Your task to perform on an android device: What's the US dollar exchange rate against the Brazilian Real? Image 0: 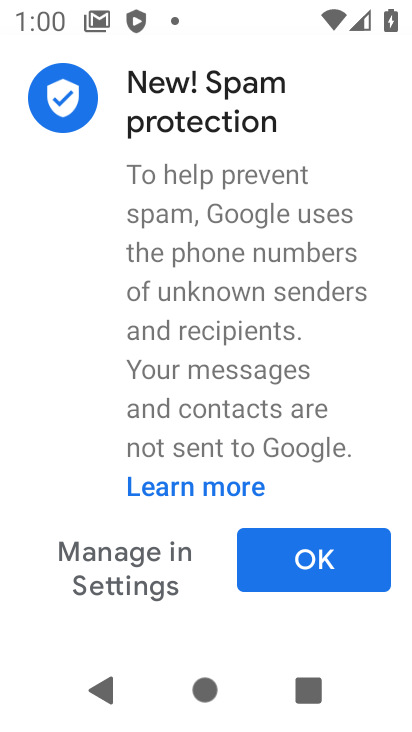
Step 0: press home button
Your task to perform on an android device: What's the US dollar exchange rate against the Brazilian Real? Image 1: 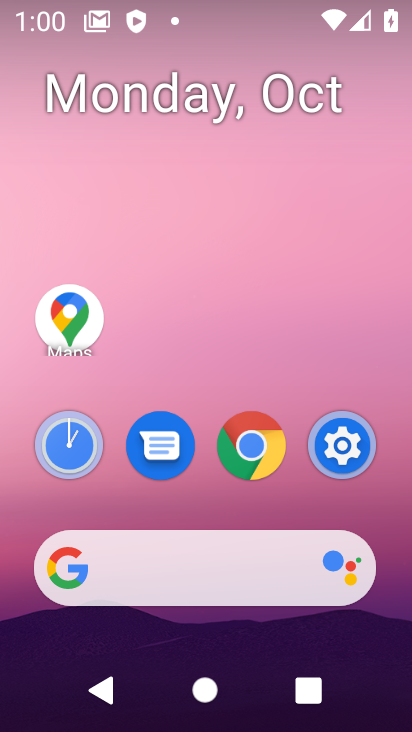
Step 1: click (142, 564)
Your task to perform on an android device: What's the US dollar exchange rate against the Brazilian Real? Image 2: 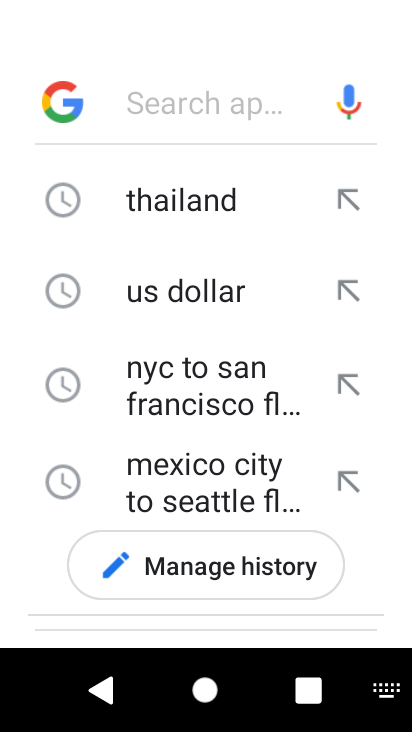
Step 2: type "US dollar exchange rate against the Brazilian Real"
Your task to perform on an android device: What's the US dollar exchange rate against the Brazilian Real? Image 3: 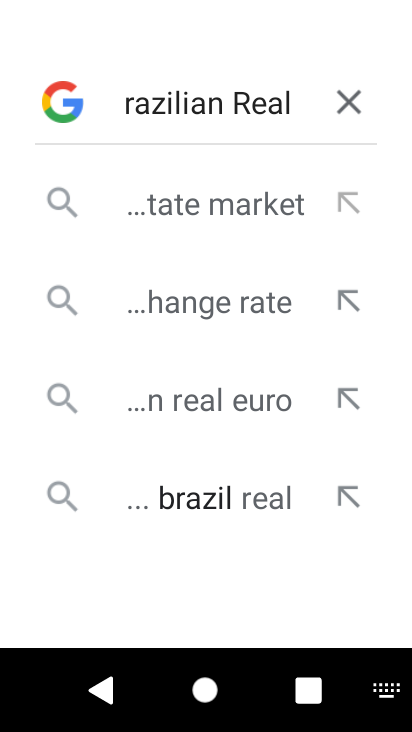
Step 3: click (253, 491)
Your task to perform on an android device: What's the US dollar exchange rate against the Brazilian Real? Image 4: 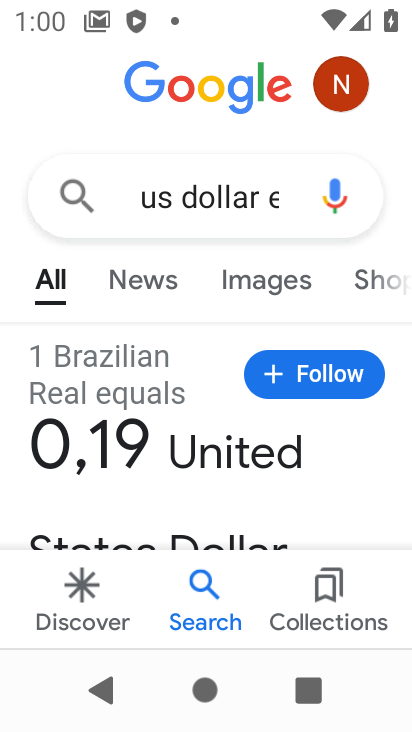
Step 4: task complete